Your task to perform on an android device: Search for flights from Tokyo to NYC Image 0: 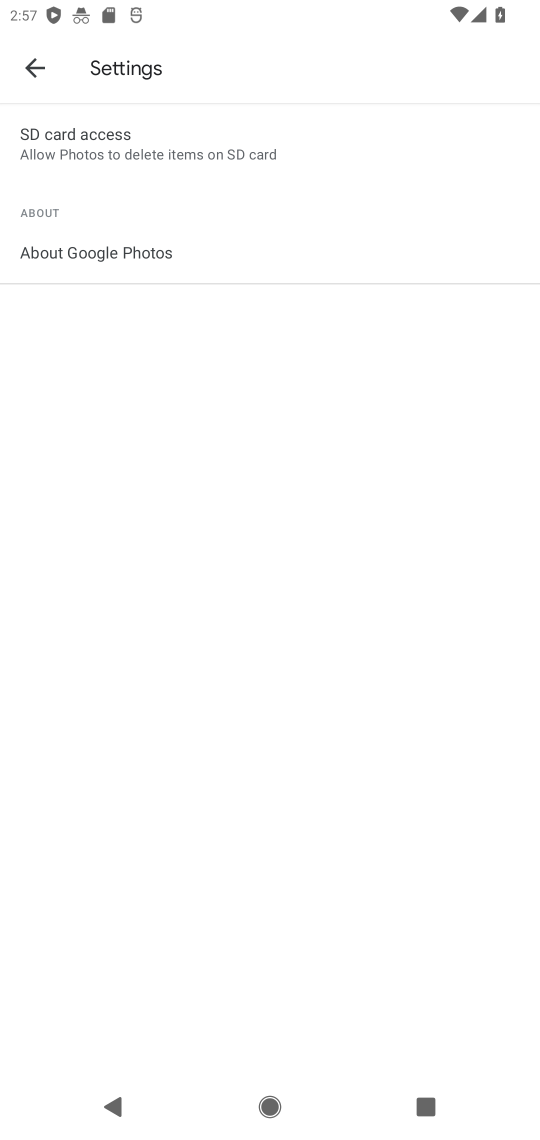
Step 0: press home button
Your task to perform on an android device: Search for flights from Tokyo to NYC Image 1: 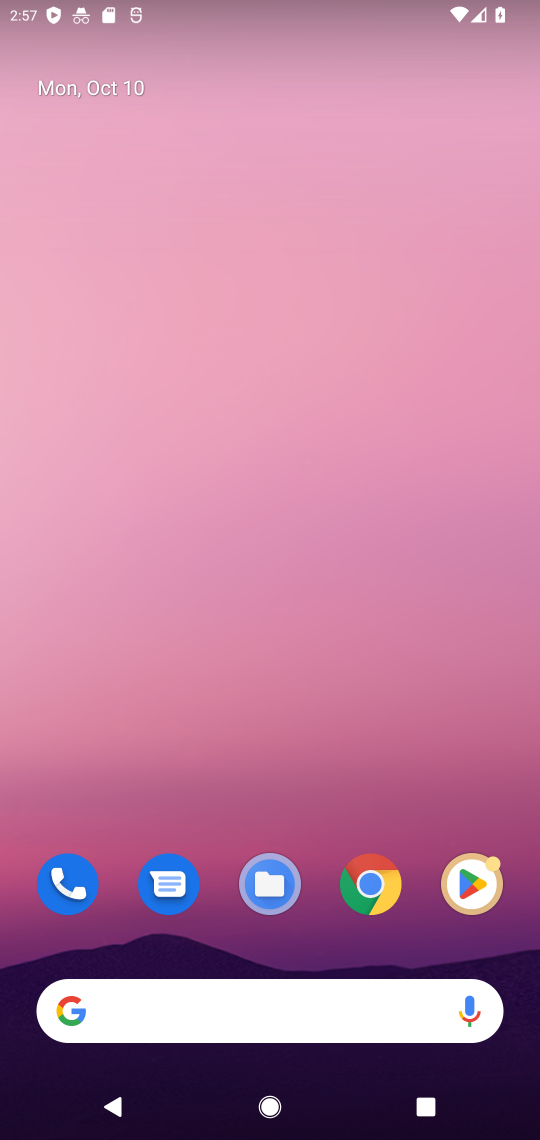
Step 1: click (209, 991)
Your task to perform on an android device: Search for flights from Tokyo to NYC Image 2: 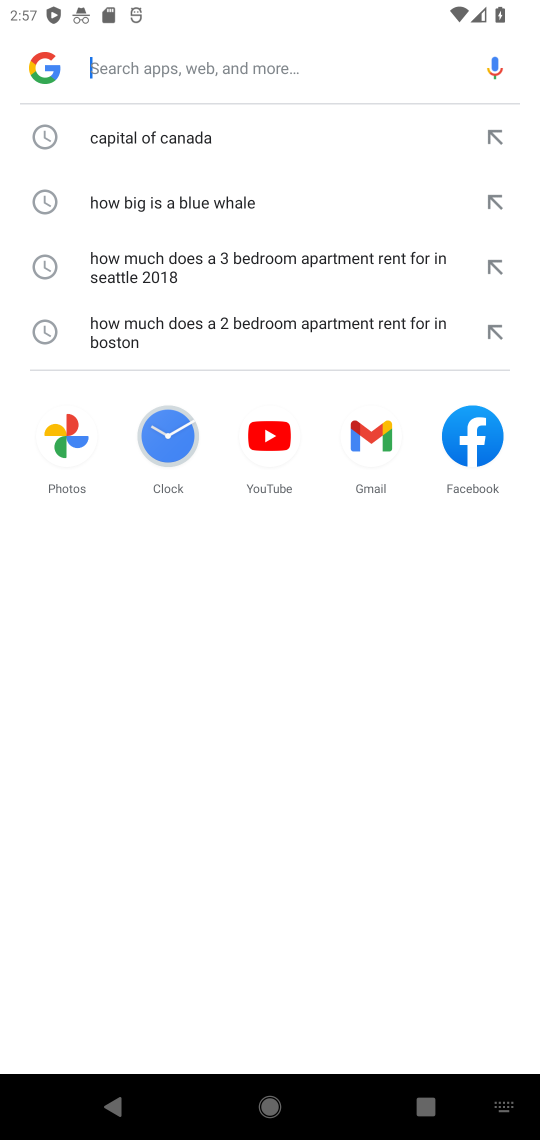
Step 2: type " flights from Tokyo to NYC"
Your task to perform on an android device: Search for flights from Tokyo to NYC Image 3: 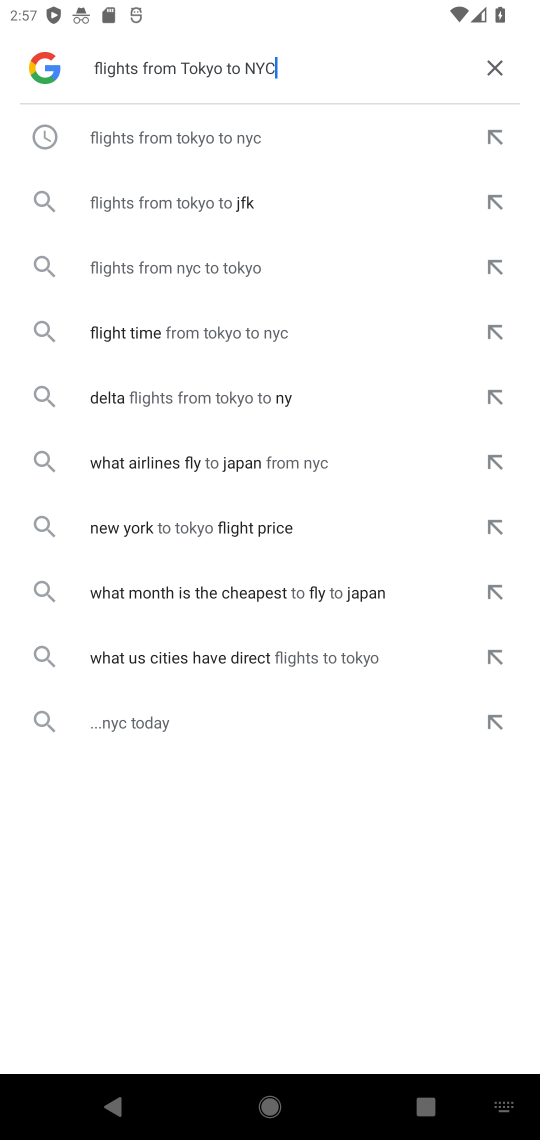
Step 3: click (144, 136)
Your task to perform on an android device: Search for flights from Tokyo to NYC Image 4: 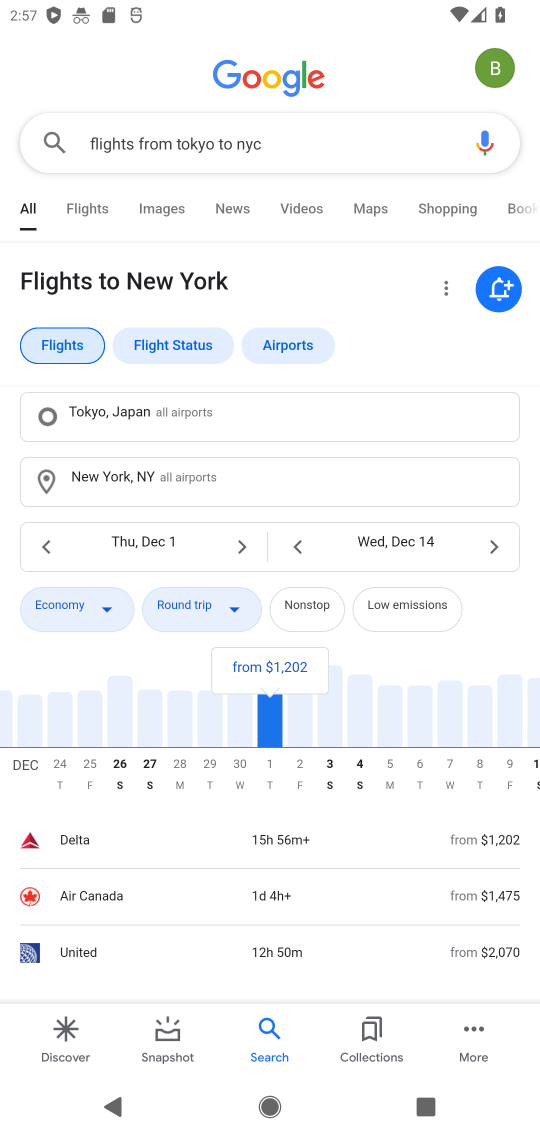
Step 4: task complete